Your task to perform on an android device: Go to accessibility settings Image 0: 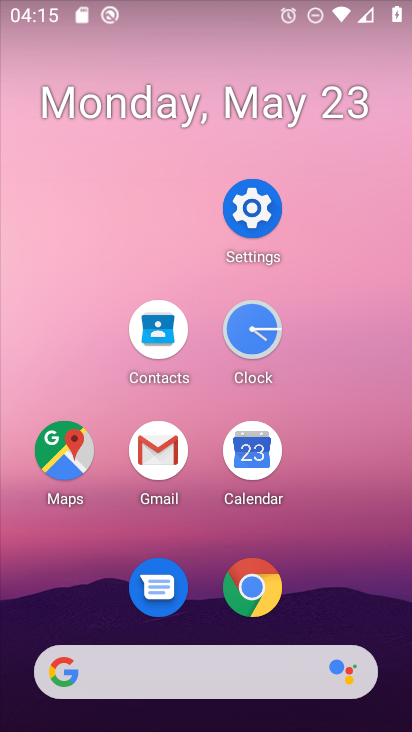
Step 0: click (254, 214)
Your task to perform on an android device: Go to accessibility settings Image 1: 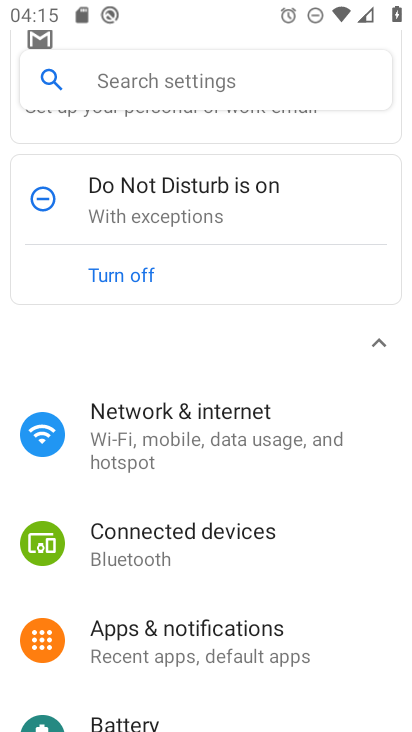
Step 1: drag from (209, 638) to (285, 229)
Your task to perform on an android device: Go to accessibility settings Image 2: 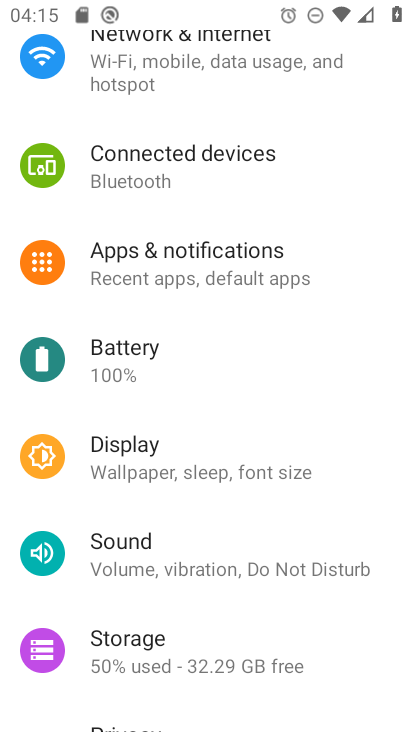
Step 2: drag from (256, 600) to (273, 21)
Your task to perform on an android device: Go to accessibility settings Image 3: 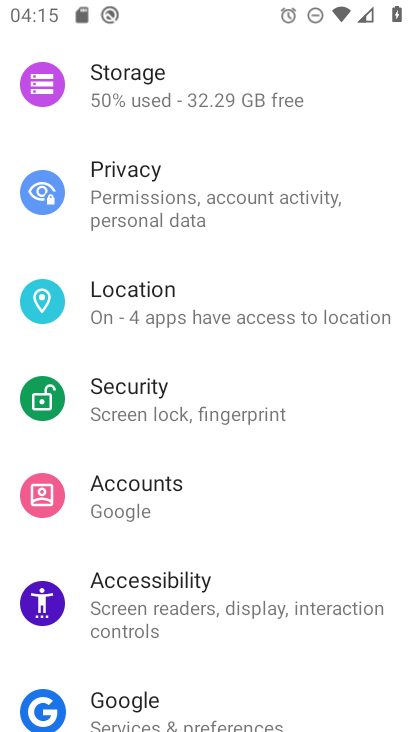
Step 3: drag from (212, 531) to (225, 260)
Your task to perform on an android device: Go to accessibility settings Image 4: 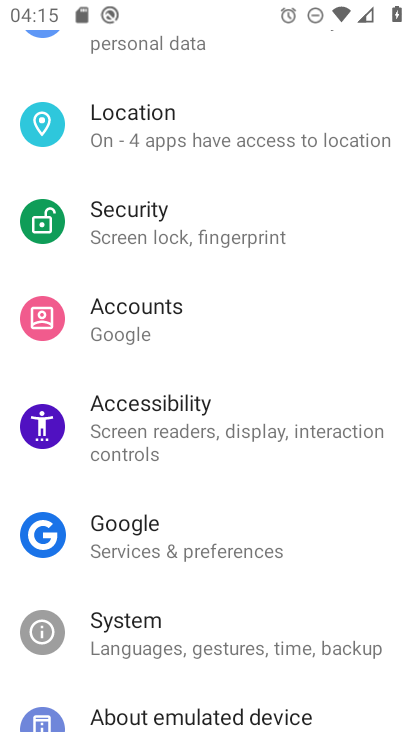
Step 4: click (239, 443)
Your task to perform on an android device: Go to accessibility settings Image 5: 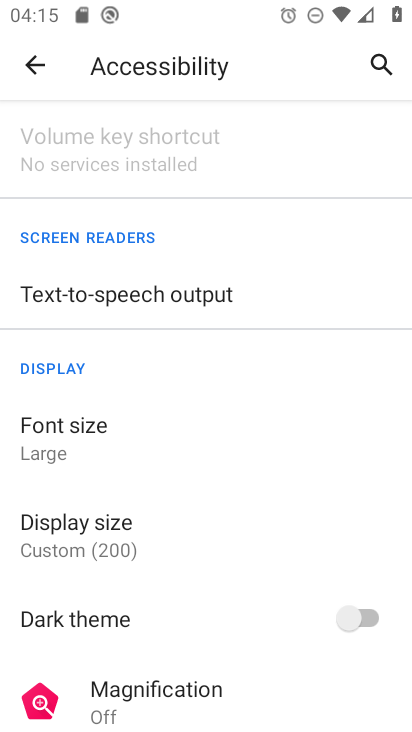
Step 5: task complete